Your task to perform on an android device: Open ESPN.com Image 0: 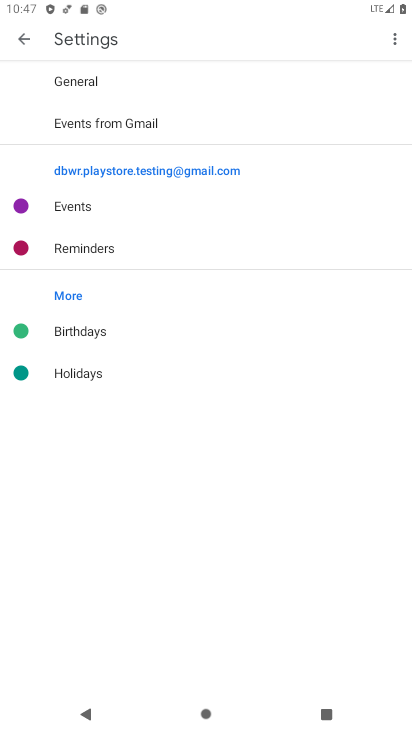
Step 0: press home button
Your task to perform on an android device: Open ESPN.com Image 1: 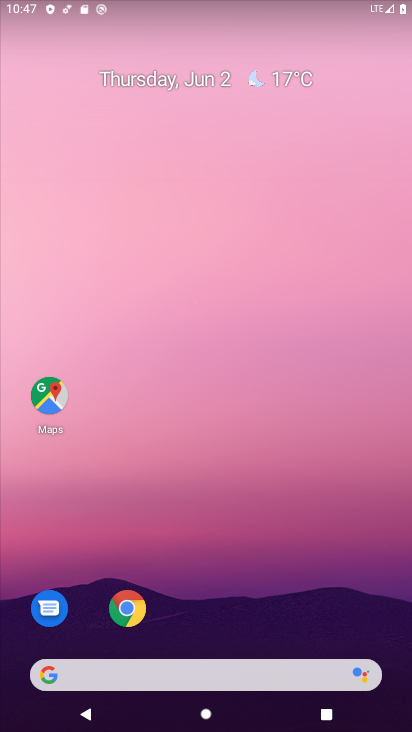
Step 1: click (122, 619)
Your task to perform on an android device: Open ESPN.com Image 2: 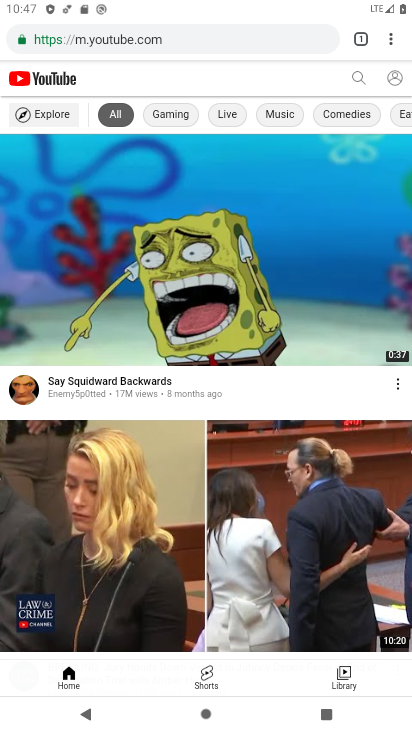
Step 2: press home button
Your task to perform on an android device: Open ESPN.com Image 3: 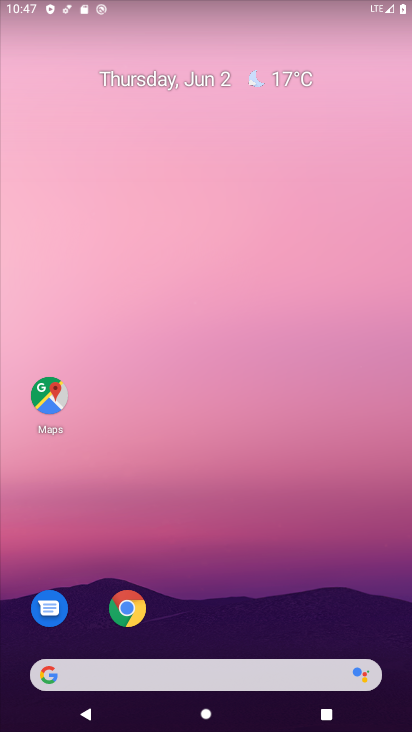
Step 3: click (136, 613)
Your task to perform on an android device: Open ESPN.com Image 4: 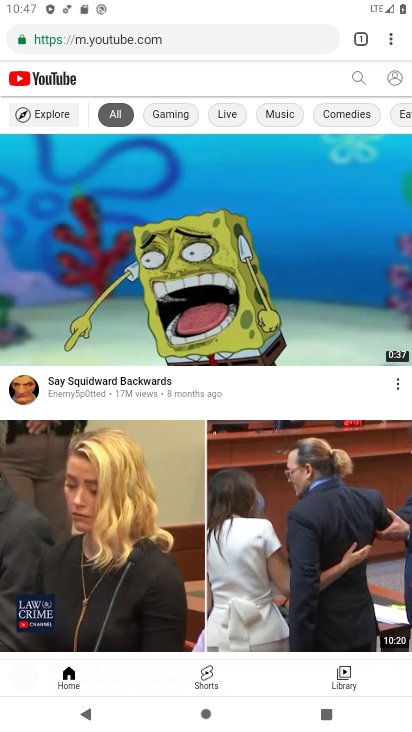
Step 4: click (355, 33)
Your task to perform on an android device: Open ESPN.com Image 5: 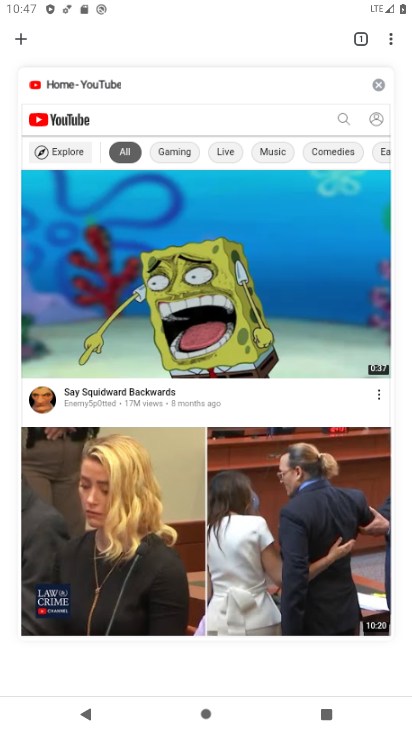
Step 5: click (20, 40)
Your task to perform on an android device: Open ESPN.com Image 6: 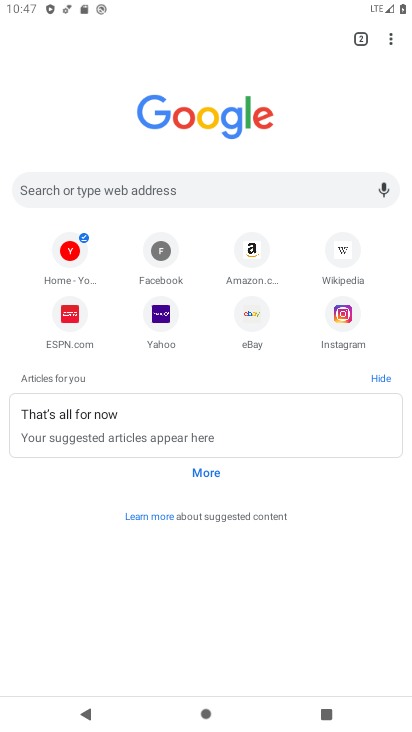
Step 6: click (83, 318)
Your task to perform on an android device: Open ESPN.com Image 7: 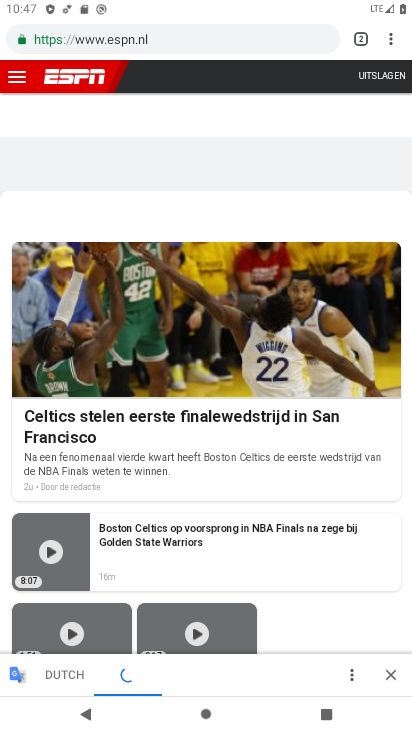
Step 7: task complete